Your task to perform on an android device: Open battery settings Image 0: 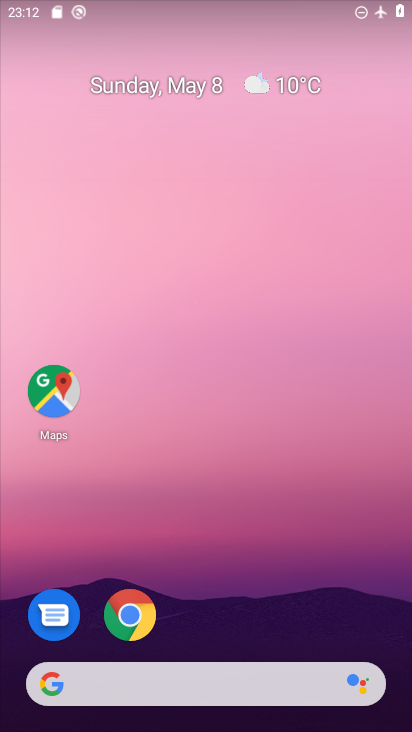
Step 0: drag from (334, 535) to (268, 4)
Your task to perform on an android device: Open battery settings Image 1: 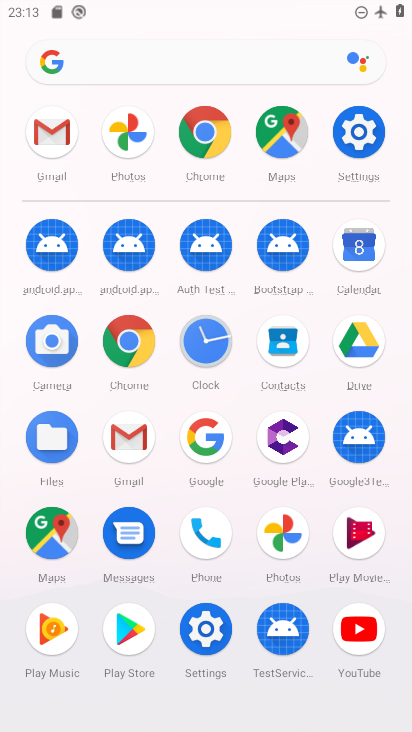
Step 1: click (353, 128)
Your task to perform on an android device: Open battery settings Image 2: 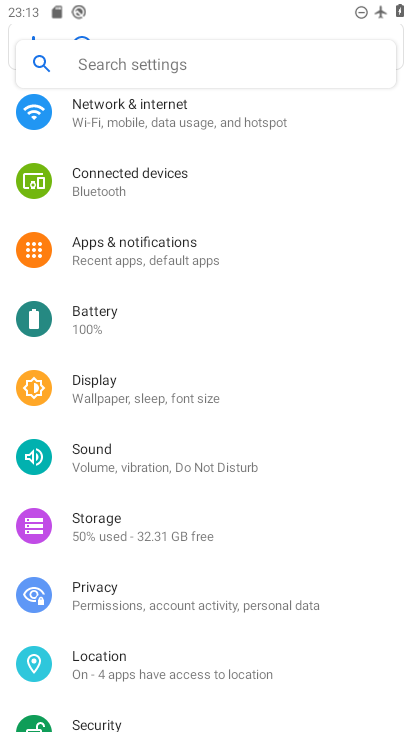
Step 2: click (108, 328)
Your task to perform on an android device: Open battery settings Image 3: 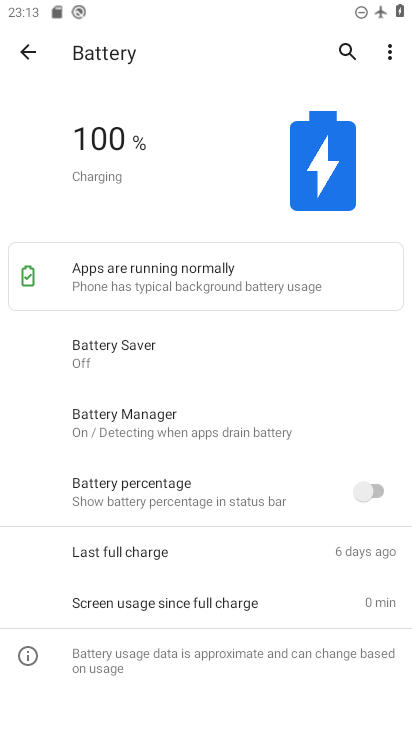
Step 3: task complete